Your task to perform on an android device: stop showing notifications on the lock screen Image 0: 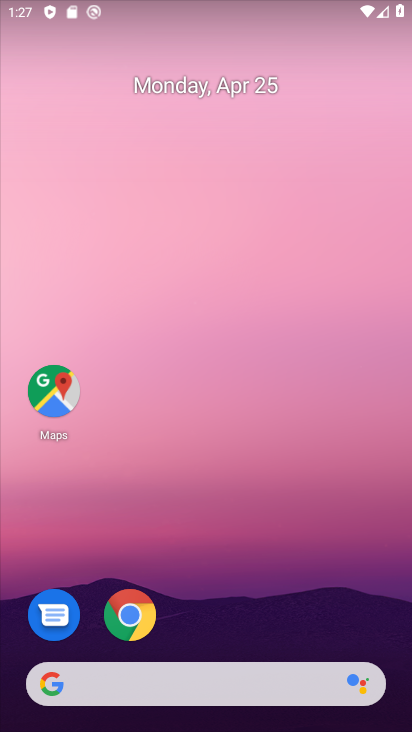
Step 0: click (139, 597)
Your task to perform on an android device: stop showing notifications on the lock screen Image 1: 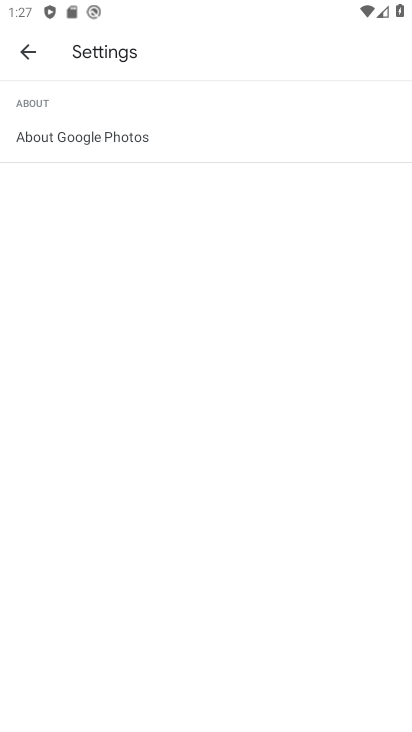
Step 1: press home button
Your task to perform on an android device: stop showing notifications on the lock screen Image 2: 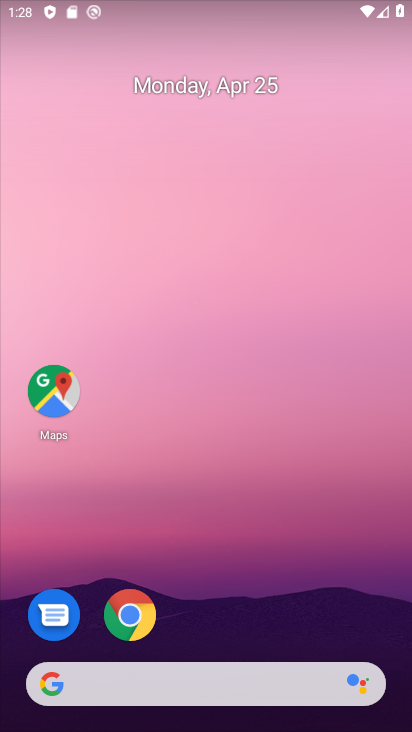
Step 2: drag from (255, 628) to (246, 207)
Your task to perform on an android device: stop showing notifications on the lock screen Image 3: 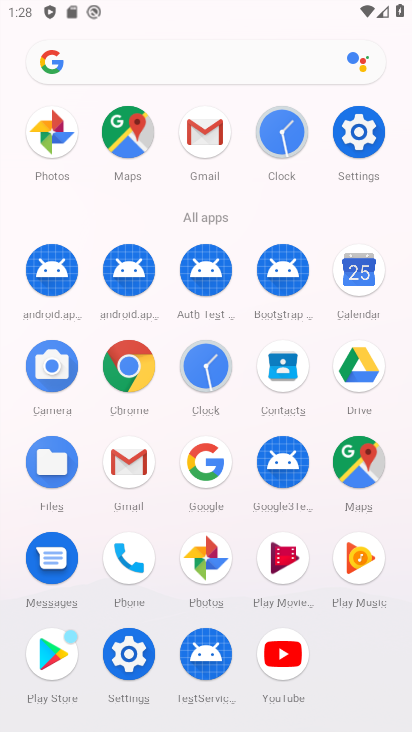
Step 3: click (359, 127)
Your task to perform on an android device: stop showing notifications on the lock screen Image 4: 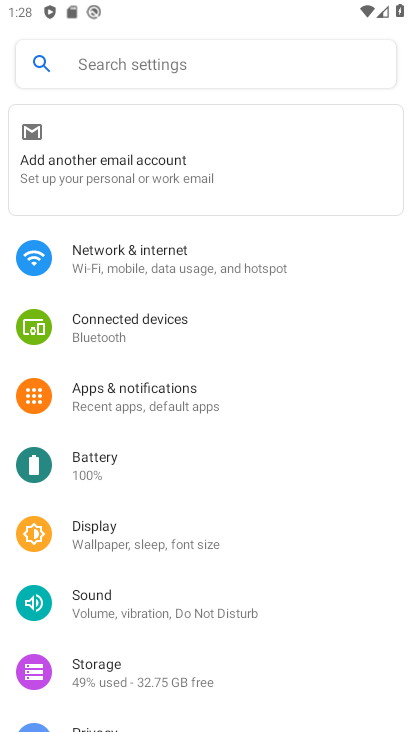
Step 4: click (214, 397)
Your task to perform on an android device: stop showing notifications on the lock screen Image 5: 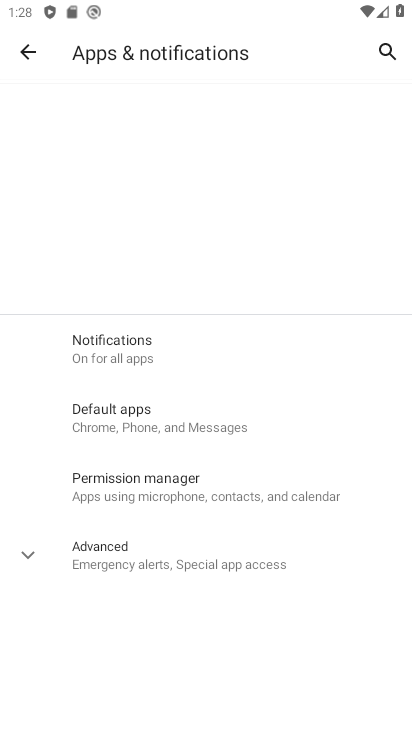
Step 5: click (203, 364)
Your task to perform on an android device: stop showing notifications on the lock screen Image 6: 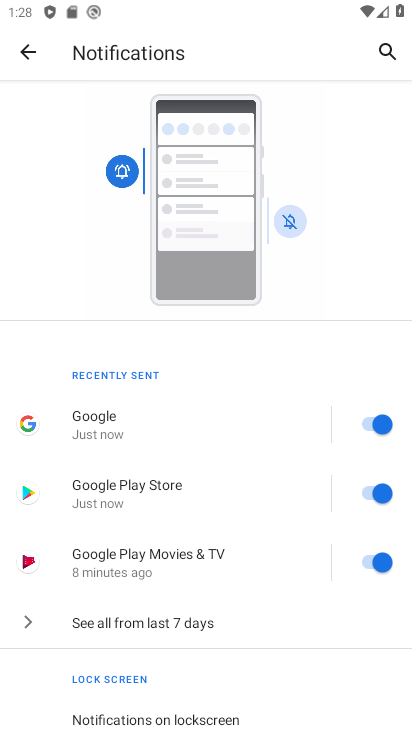
Step 6: drag from (233, 660) to (284, 118)
Your task to perform on an android device: stop showing notifications on the lock screen Image 7: 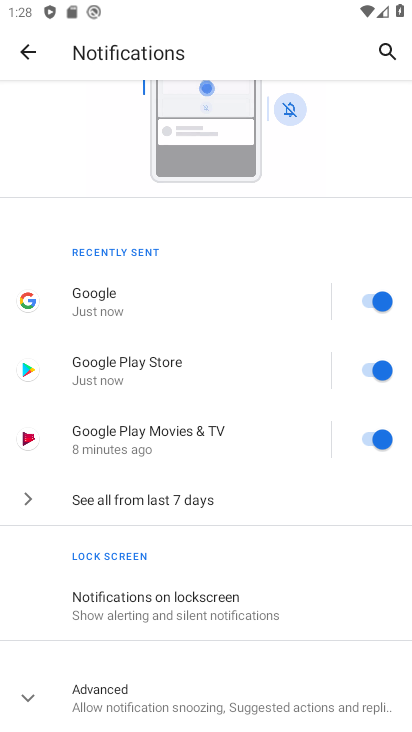
Step 7: click (273, 597)
Your task to perform on an android device: stop showing notifications on the lock screen Image 8: 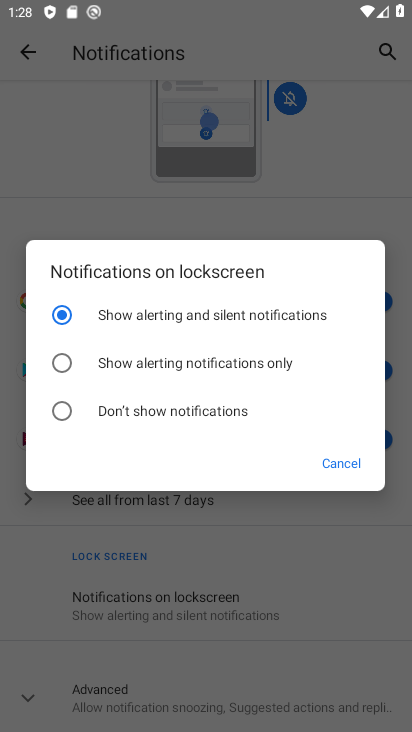
Step 8: click (220, 420)
Your task to perform on an android device: stop showing notifications on the lock screen Image 9: 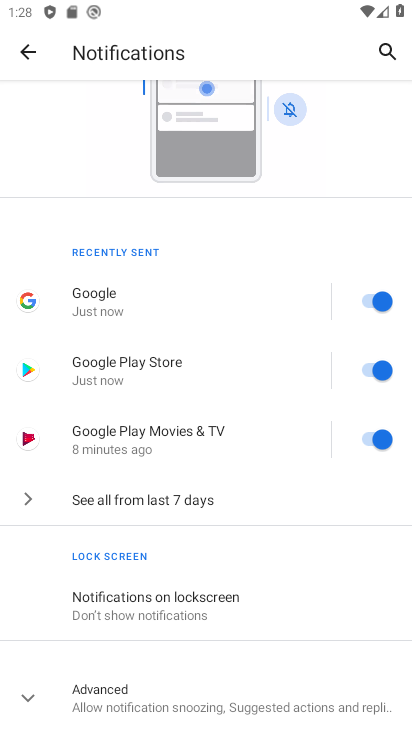
Step 9: task complete